Your task to perform on an android device: open a bookmark in the chrome app Image 0: 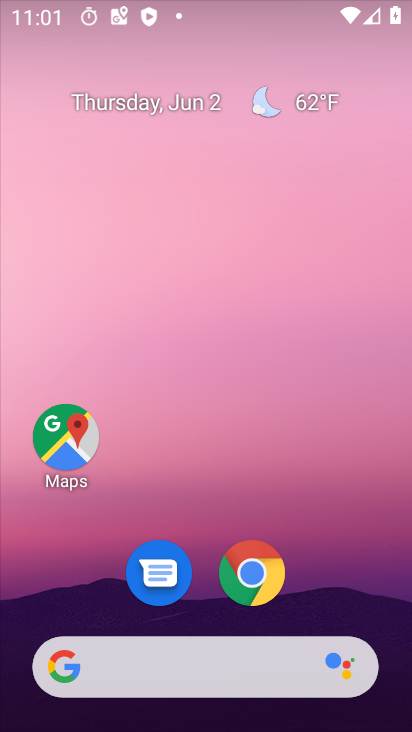
Step 0: drag from (325, 648) to (307, 24)
Your task to perform on an android device: open a bookmark in the chrome app Image 1: 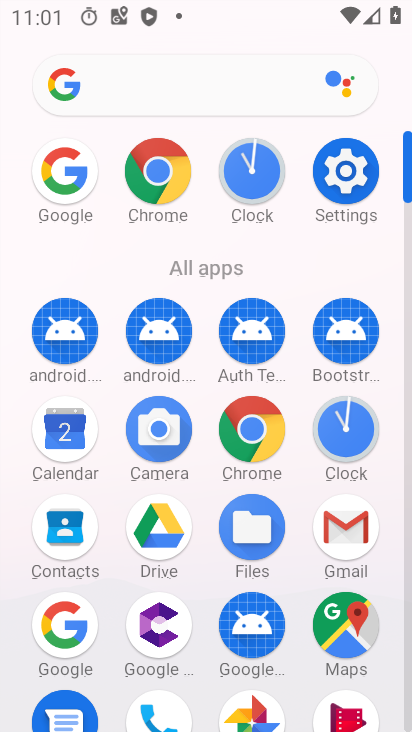
Step 1: click (341, 167)
Your task to perform on an android device: open a bookmark in the chrome app Image 2: 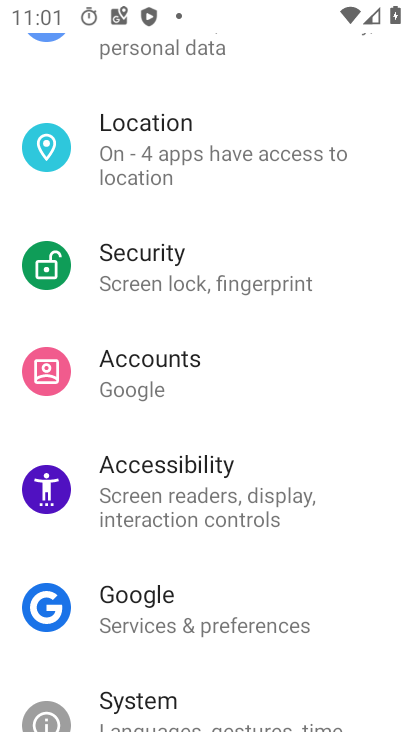
Step 2: drag from (296, 354) to (253, 730)
Your task to perform on an android device: open a bookmark in the chrome app Image 3: 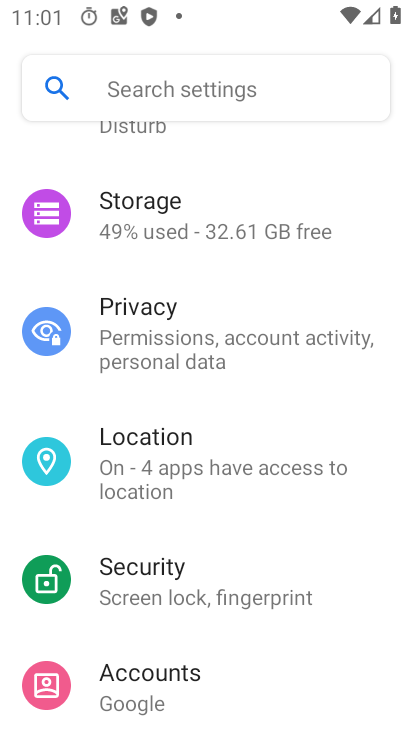
Step 3: drag from (264, 382) to (299, 722)
Your task to perform on an android device: open a bookmark in the chrome app Image 4: 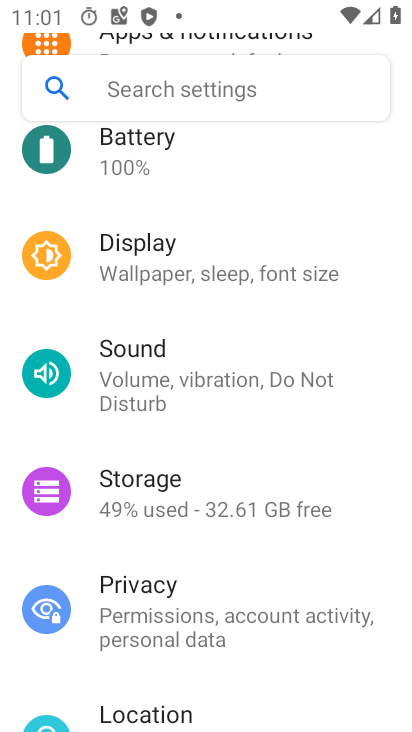
Step 4: drag from (235, 311) to (233, 655)
Your task to perform on an android device: open a bookmark in the chrome app Image 5: 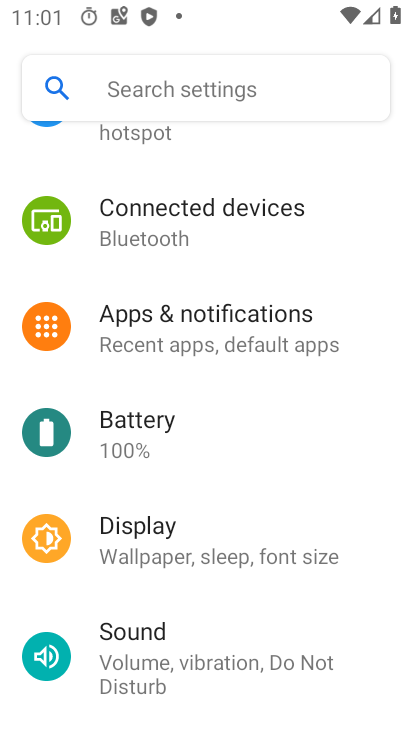
Step 5: press home button
Your task to perform on an android device: open a bookmark in the chrome app Image 6: 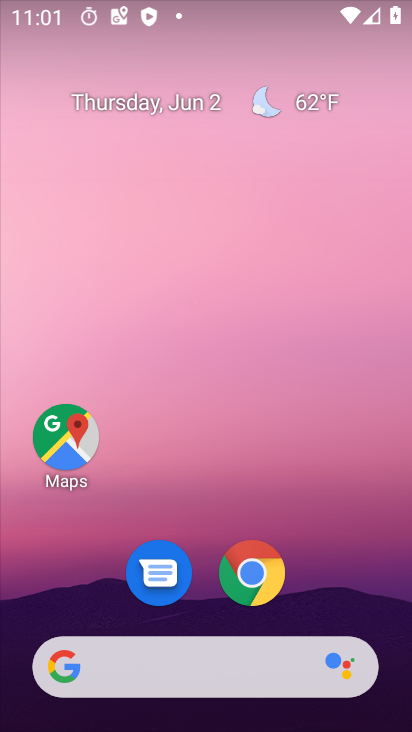
Step 6: drag from (282, 684) to (326, 12)
Your task to perform on an android device: open a bookmark in the chrome app Image 7: 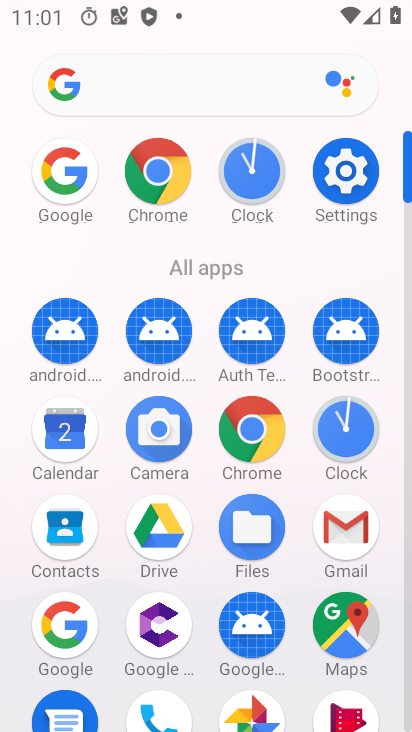
Step 7: click (252, 434)
Your task to perform on an android device: open a bookmark in the chrome app Image 8: 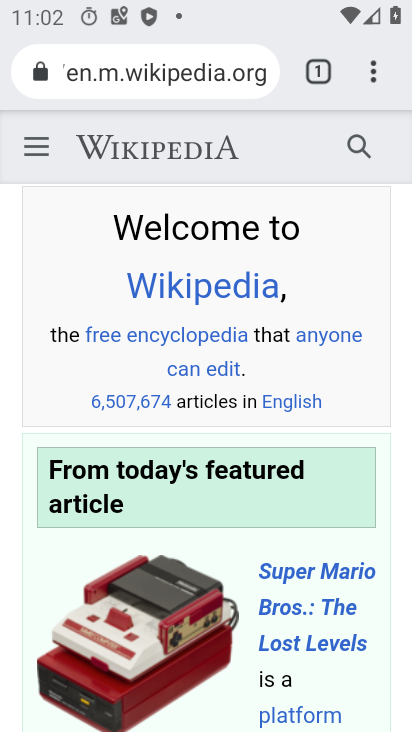
Step 8: task complete